Your task to perform on an android device: What's on my calendar tomorrow? Image 0: 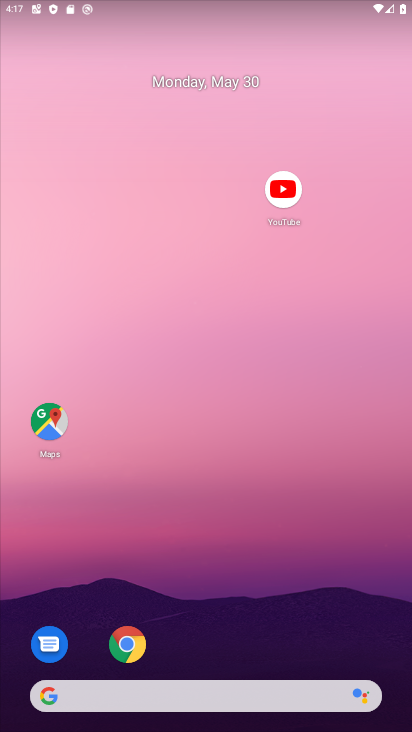
Step 0: click (202, 78)
Your task to perform on an android device: What's on my calendar tomorrow? Image 1: 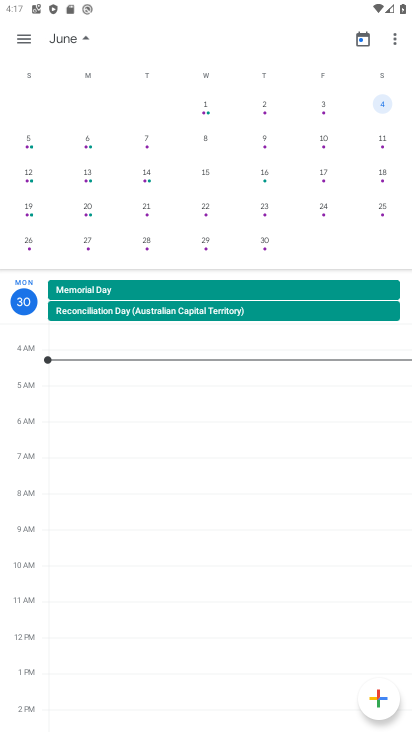
Step 1: click (19, 107)
Your task to perform on an android device: What's on my calendar tomorrow? Image 2: 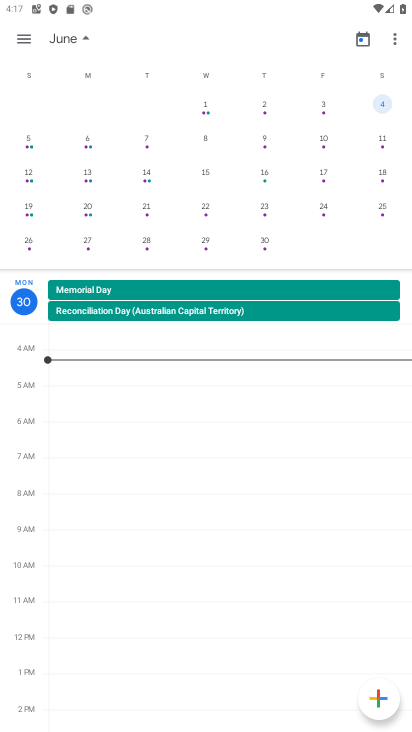
Step 2: drag from (19, 107) to (375, 177)
Your task to perform on an android device: What's on my calendar tomorrow? Image 3: 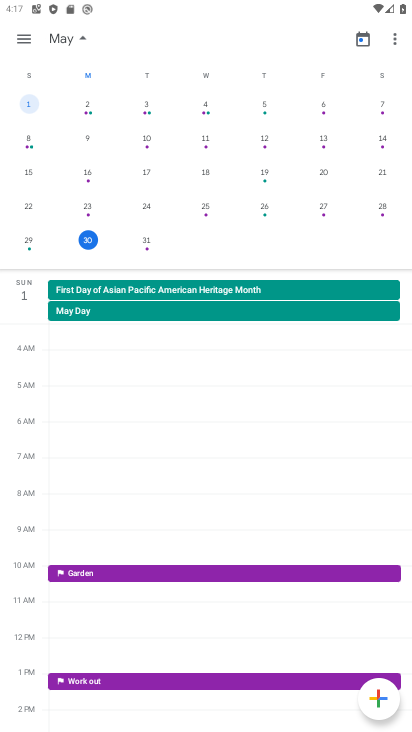
Step 3: click (143, 250)
Your task to perform on an android device: What's on my calendar tomorrow? Image 4: 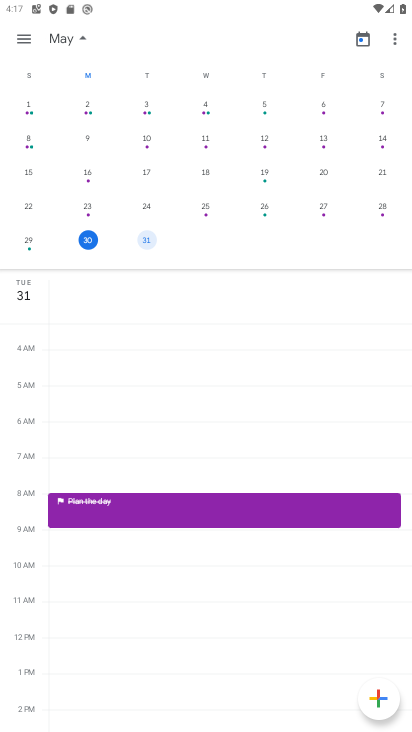
Step 4: task complete